Your task to perform on an android device: open app "Contacts" (install if not already installed) Image 0: 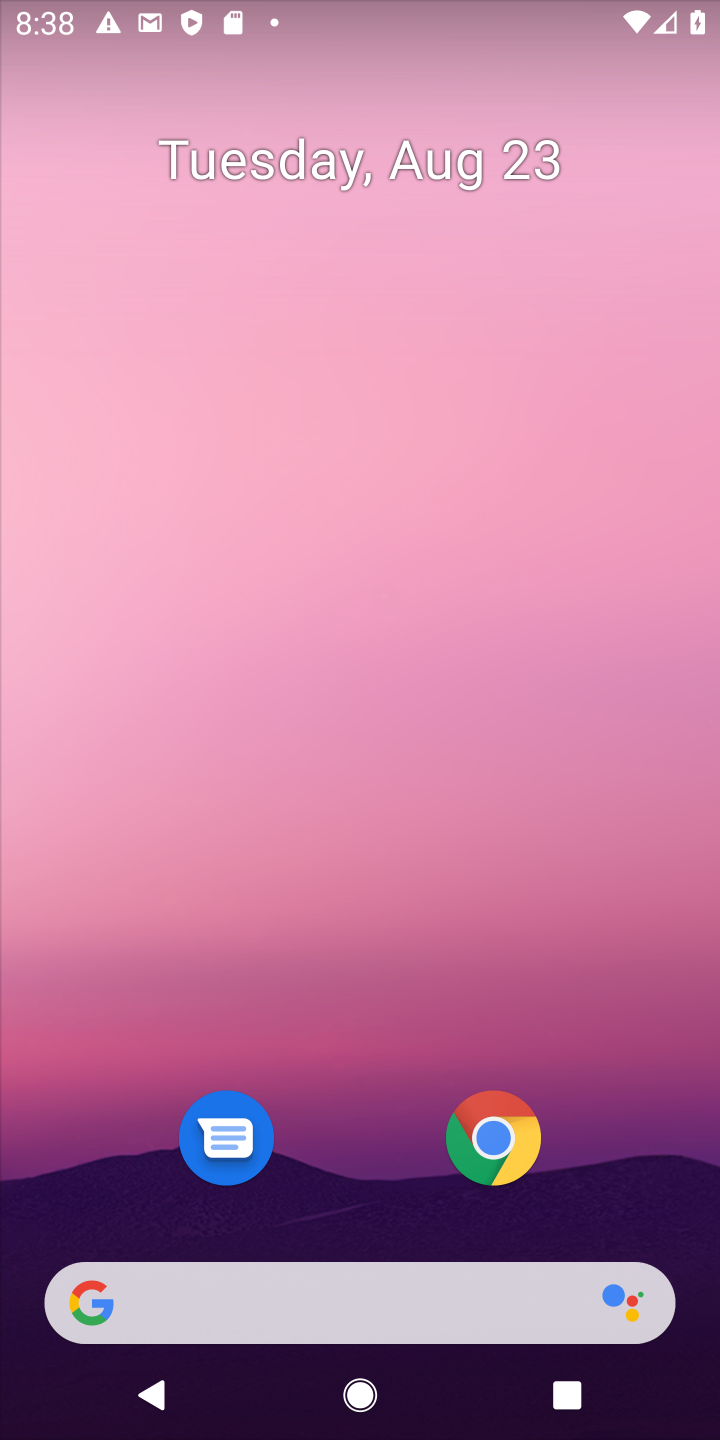
Step 0: press home button
Your task to perform on an android device: open app "Contacts" (install if not already installed) Image 1: 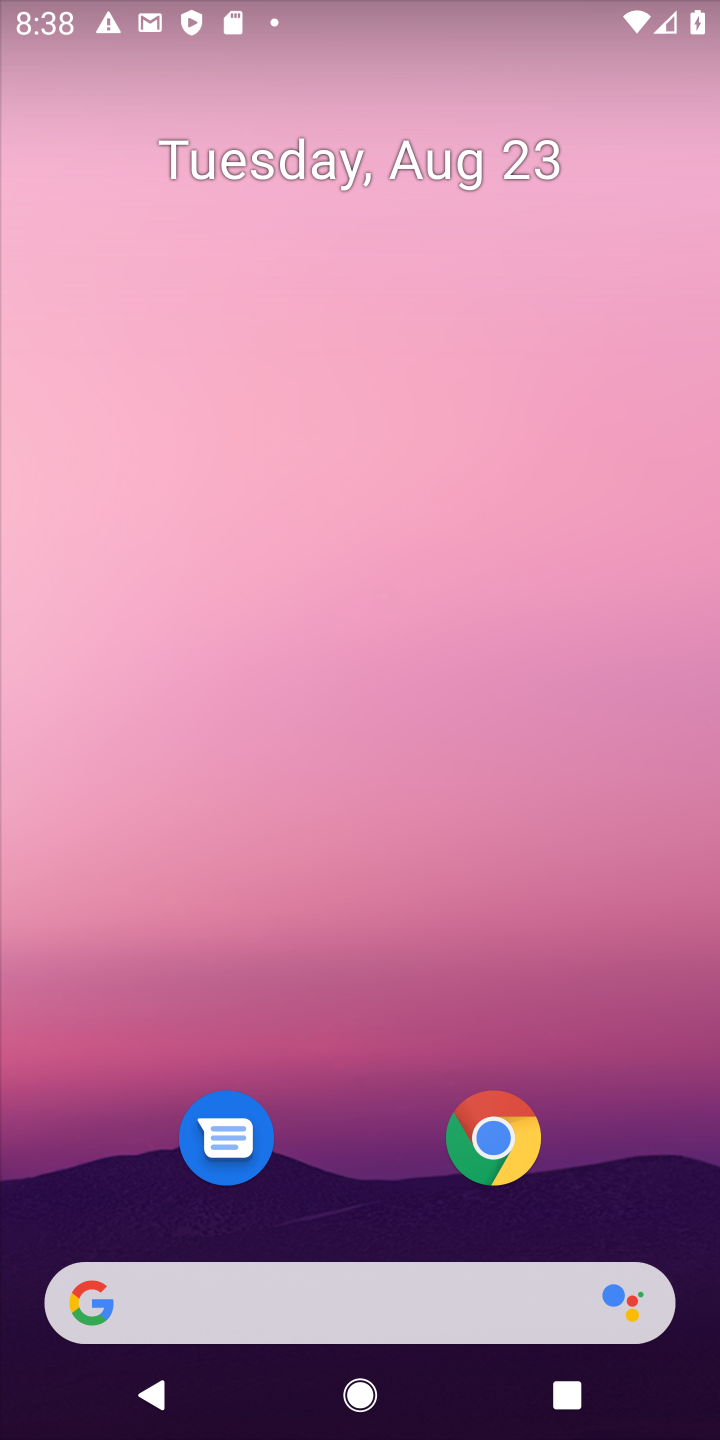
Step 1: drag from (643, 1131) to (692, 330)
Your task to perform on an android device: open app "Contacts" (install if not already installed) Image 2: 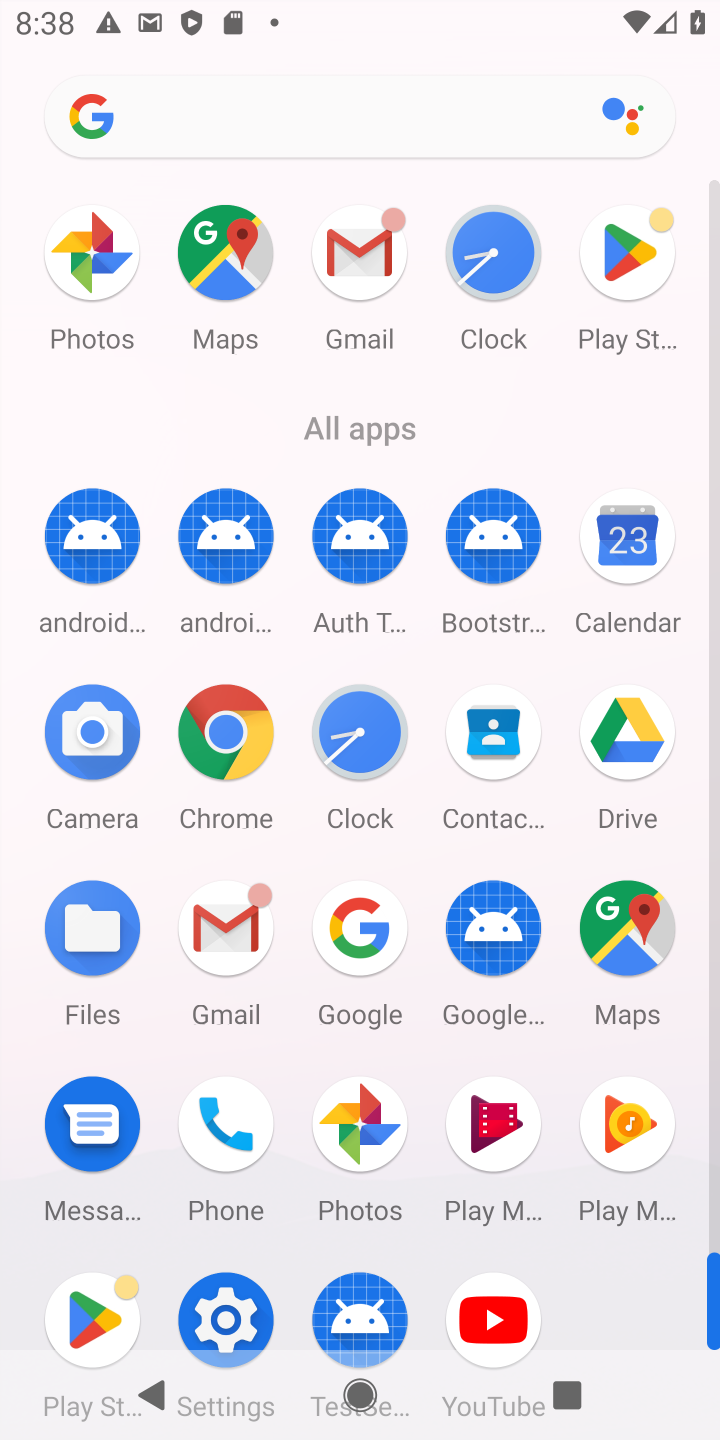
Step 2: click (620, 266)
Your task to perform on an android device: open app "Contacts" (install if not already installed) Image 3: 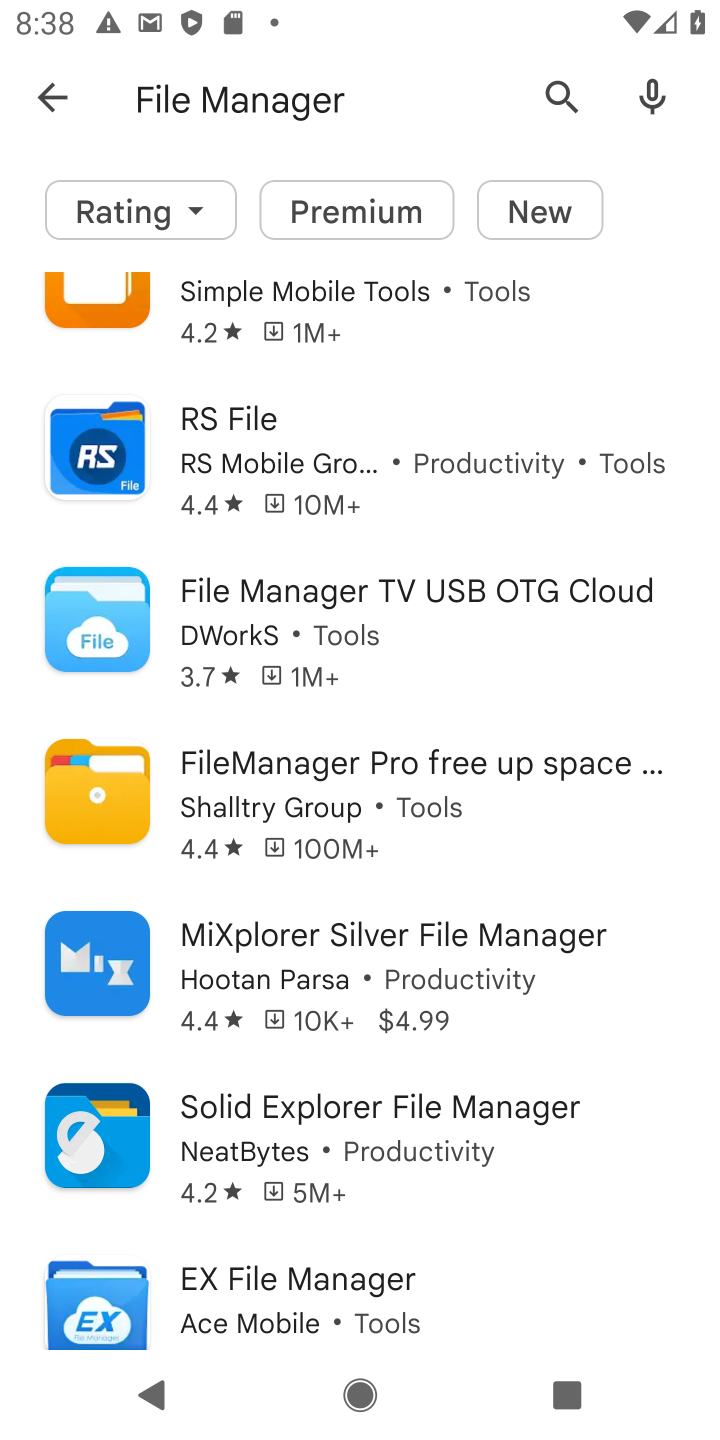
Step 3: press back button
Your task to perform on an android device: open app "Contacts" (install if not already installed) Image 4: 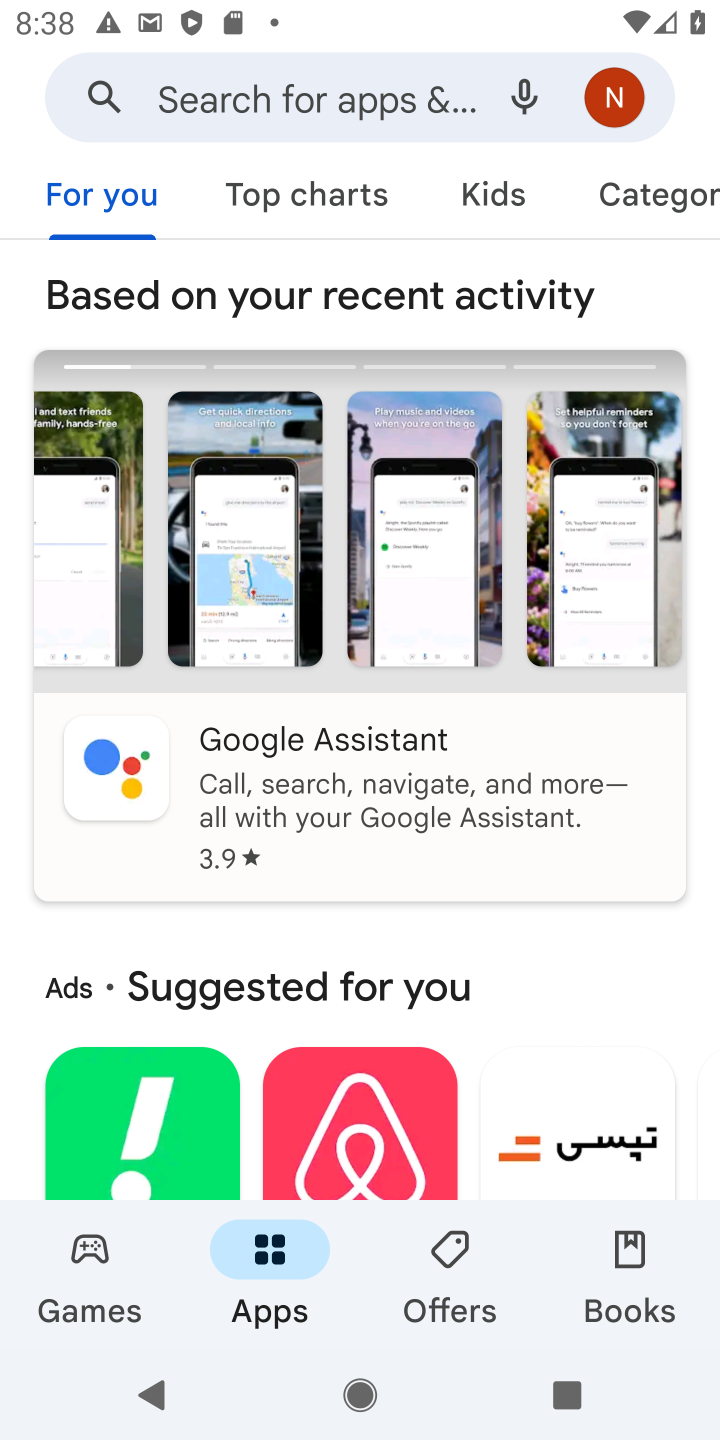
Step 4: click (325, 89)
Your task to perform on an android device: open app "Contacts" (install if not already installed) Image 5: 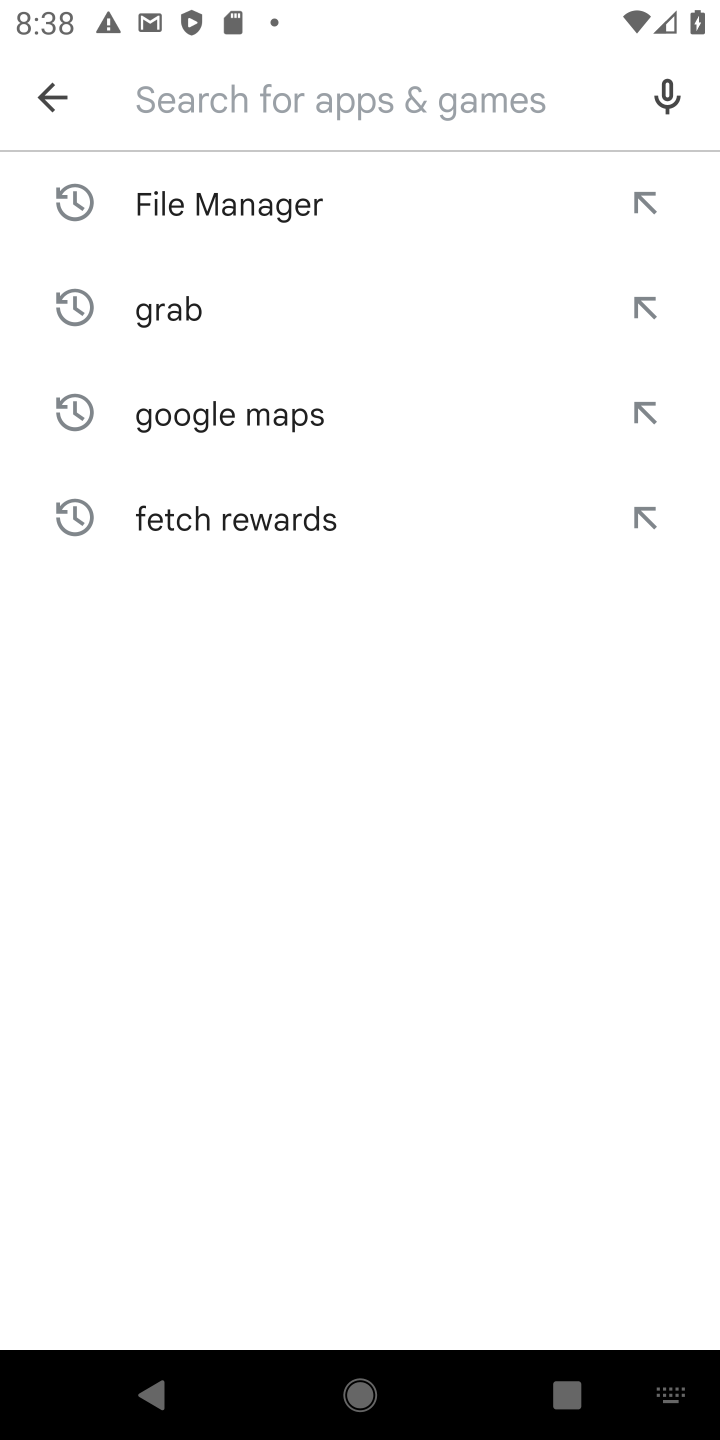
Step 5: press enter
Your task to perform on an android device: open app "Contacts" (install if not already installed) Image 6: 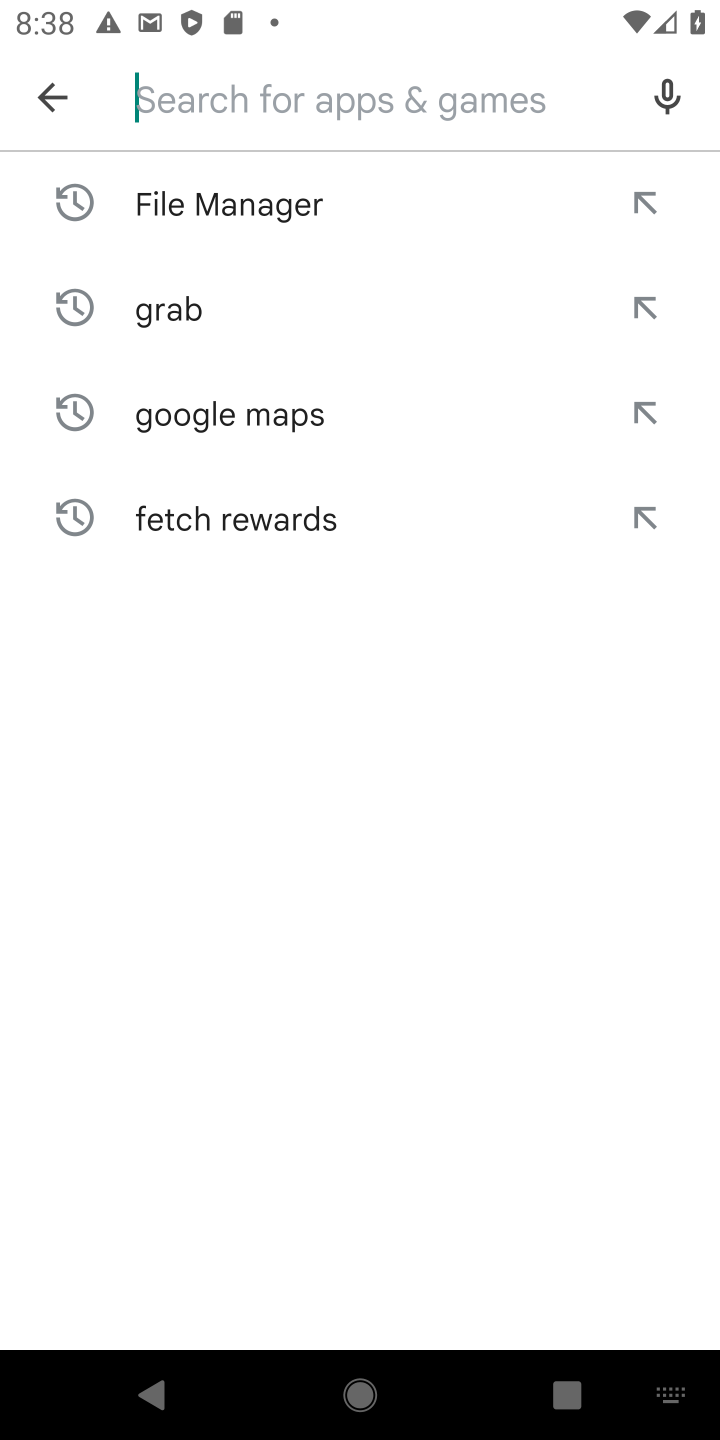
Step 6: type "contacts"
Your task to perform on an android device: open app "Contacts" (install if not already installed) Image 7: 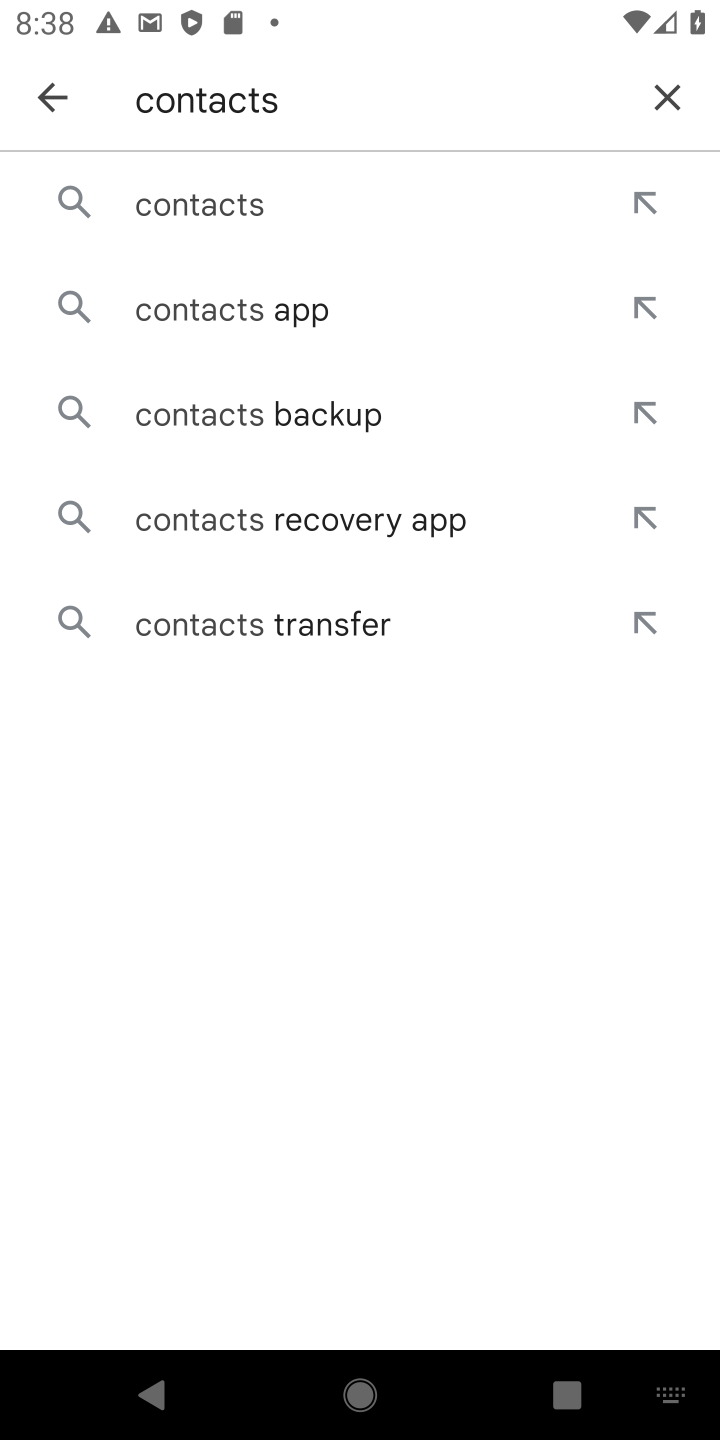
Step 7: click (290, 333)
Your task to perform on an android device: open app "Contacts" (install if not already installed) Image 8: 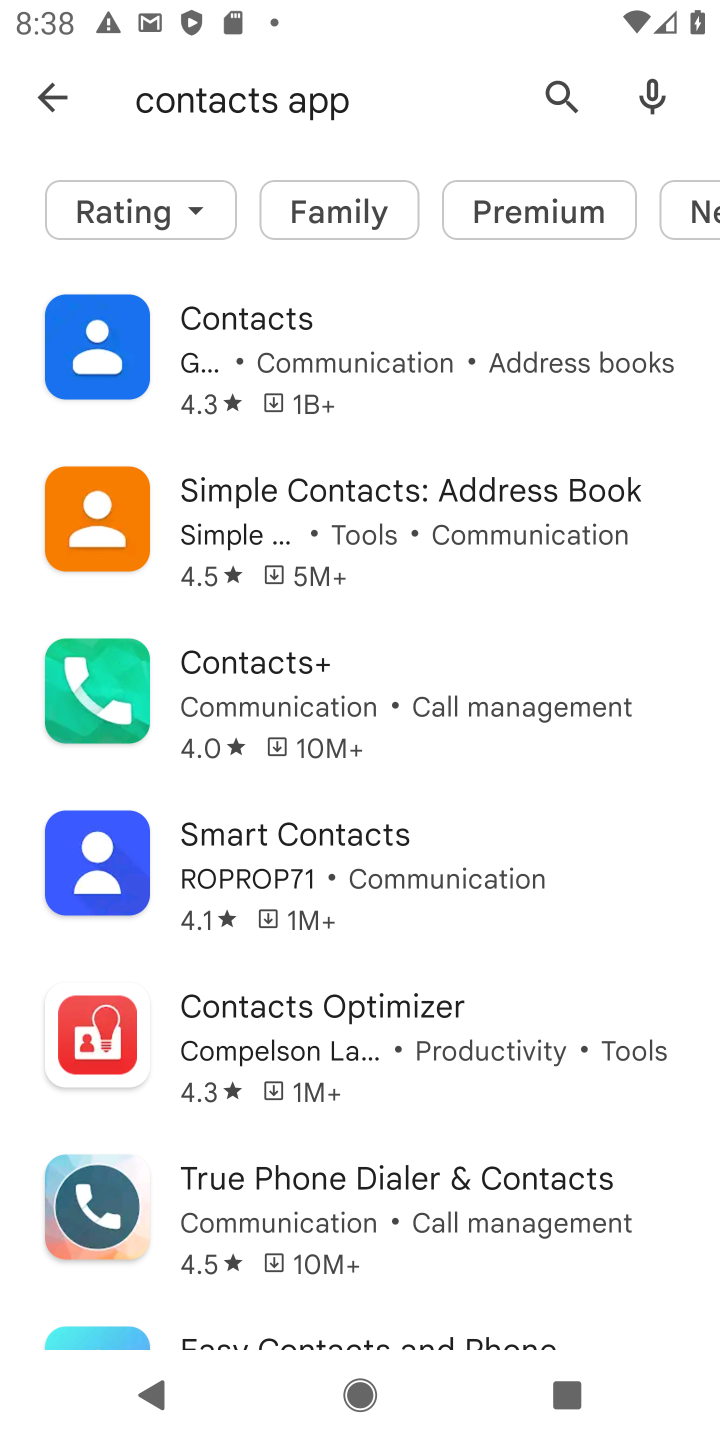
Step 8: task complete